Your task to perform on an android device: Open maps Image 0: 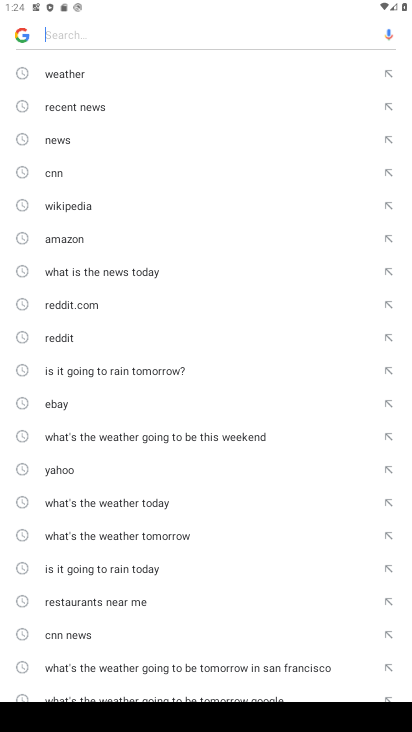
Step 0: press home button
Your task to perform on an android device: Open maps Image 1: 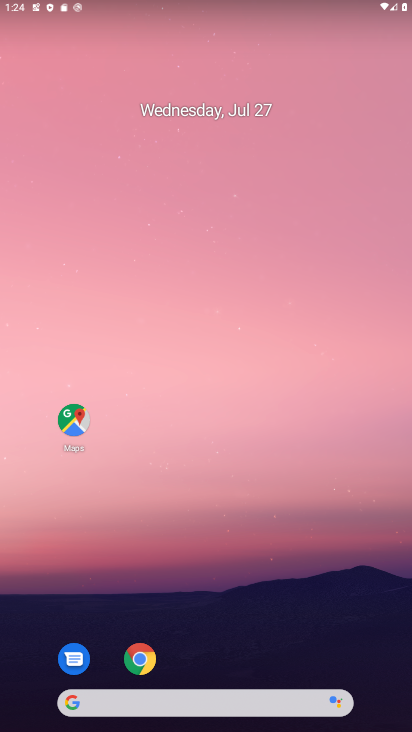
Step 1: drag from (250, 622) to (244, 0)
Your task to perform on an android device: Open maps Image 2: 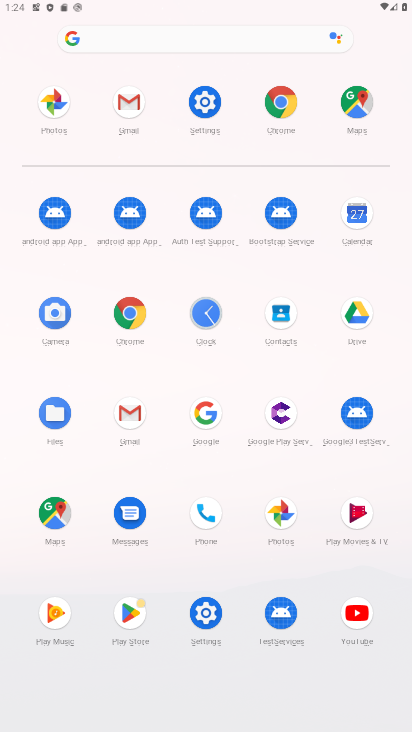
Step 2: click (53, 505)
Your task to perform on an android device: Open maps Image 3: 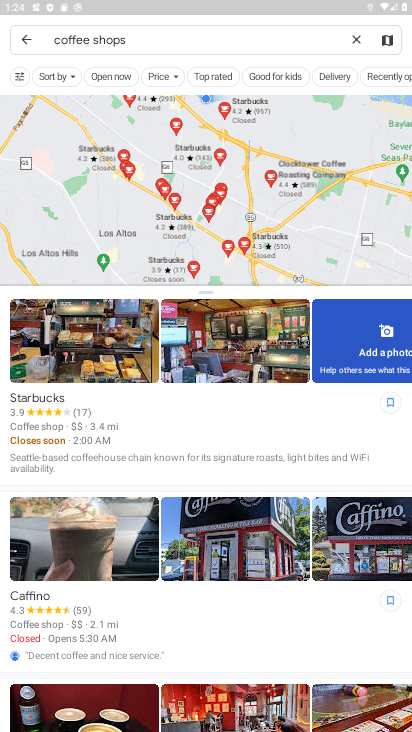
Step 3: task complete